Your task to perform on an android device: toggle notification dots Image 0: 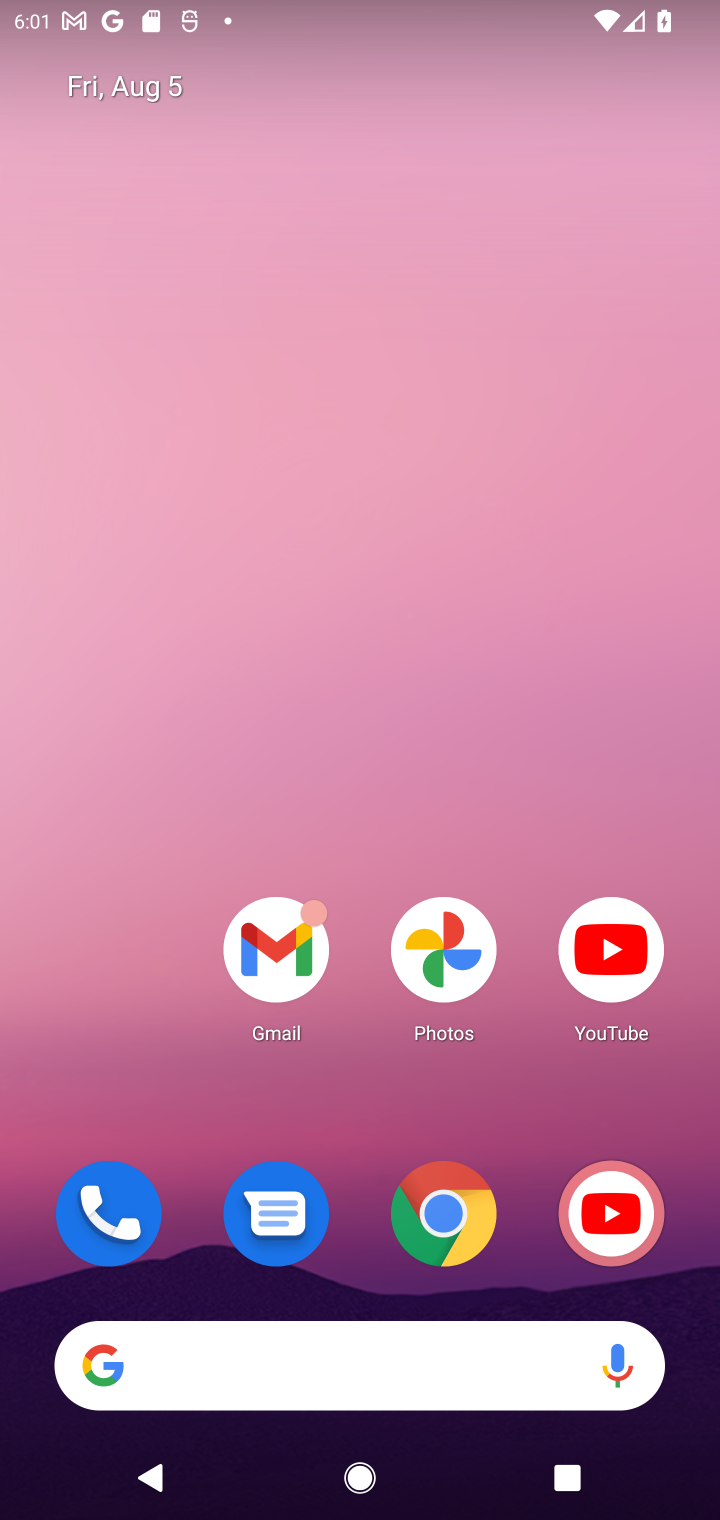
Step 0: drag from (342, 1284) to (397, 432)
Your task to perform on an android device: toggle notification dots Image 1: 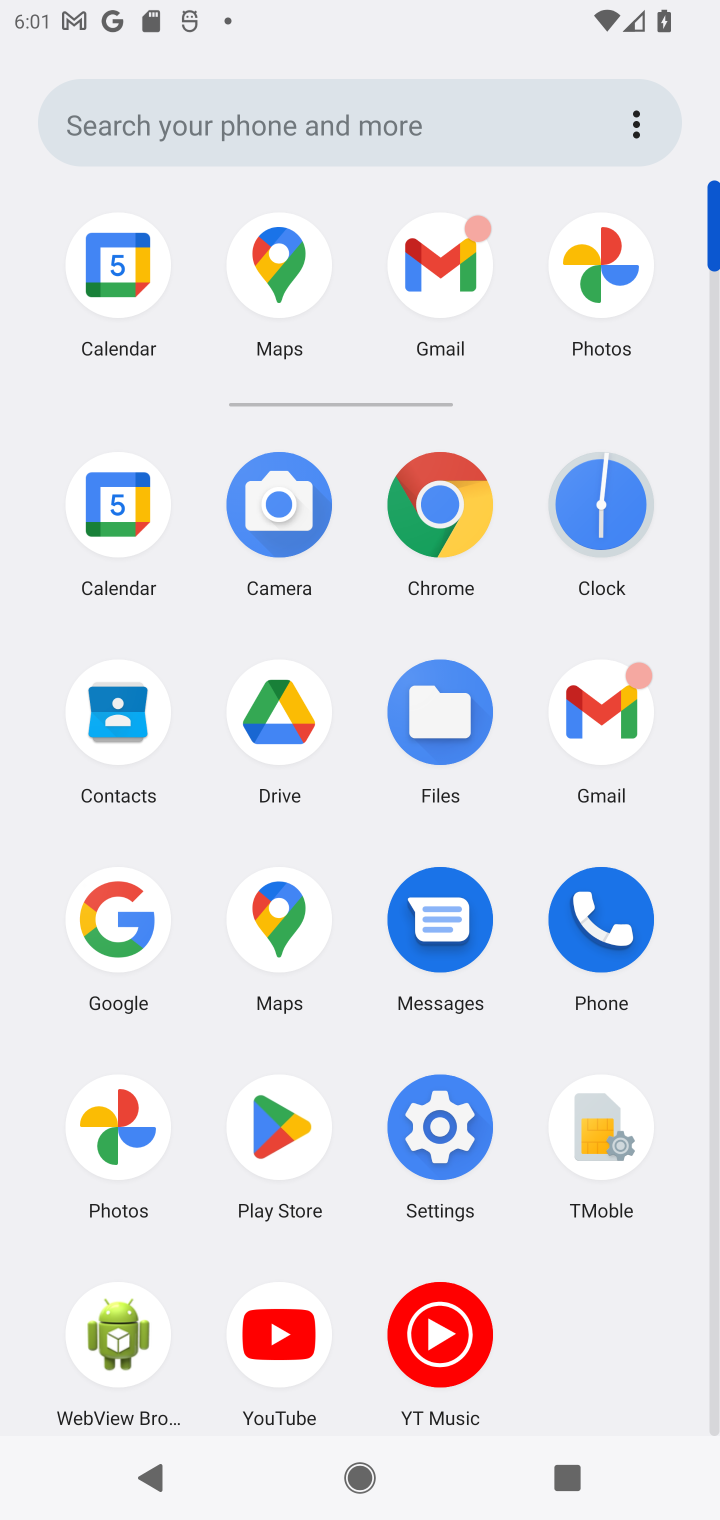
Step 1: click (428, 1144)
Your task to perform on an android device: toggle notification dots Image 2: 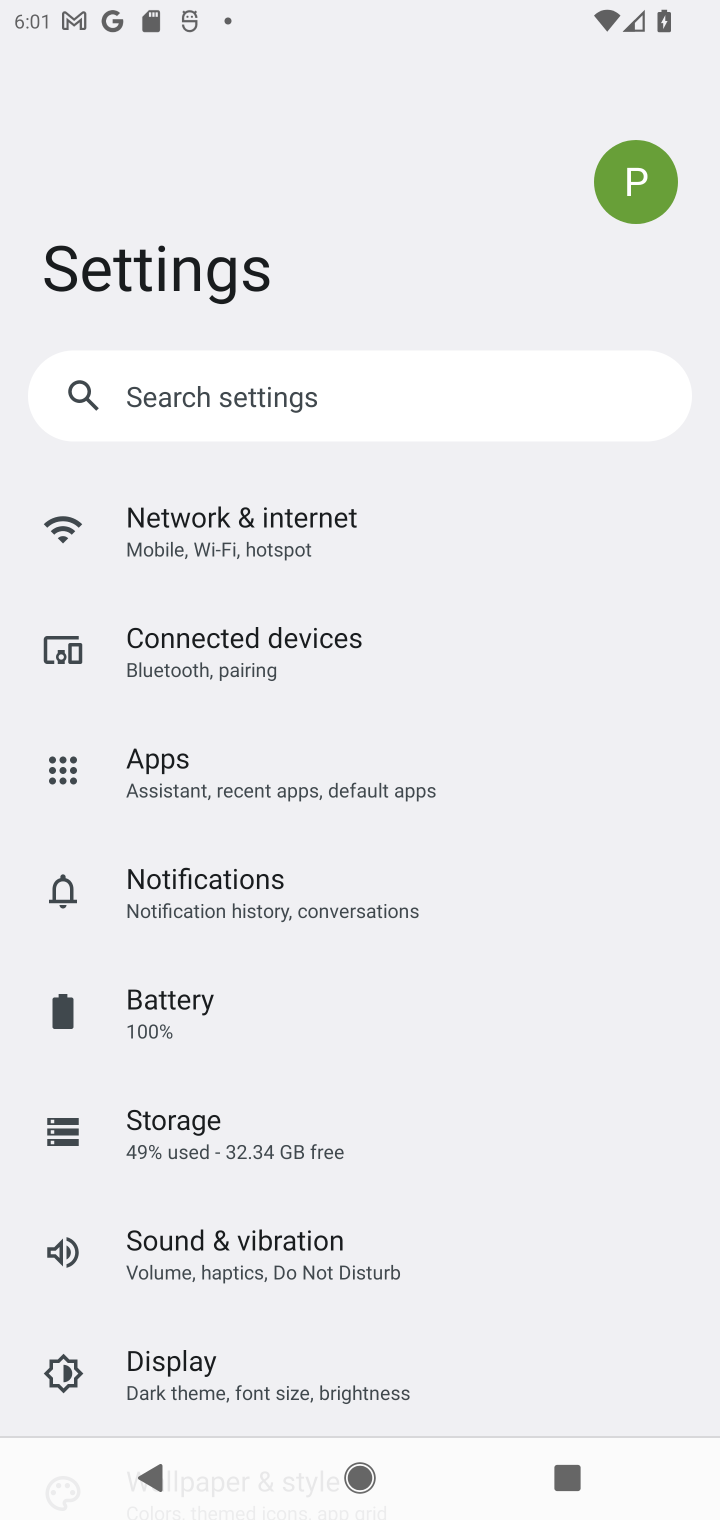
Step 2: click (252, 887)
Your task to perform on an android device: toggle notification dots Image 3: 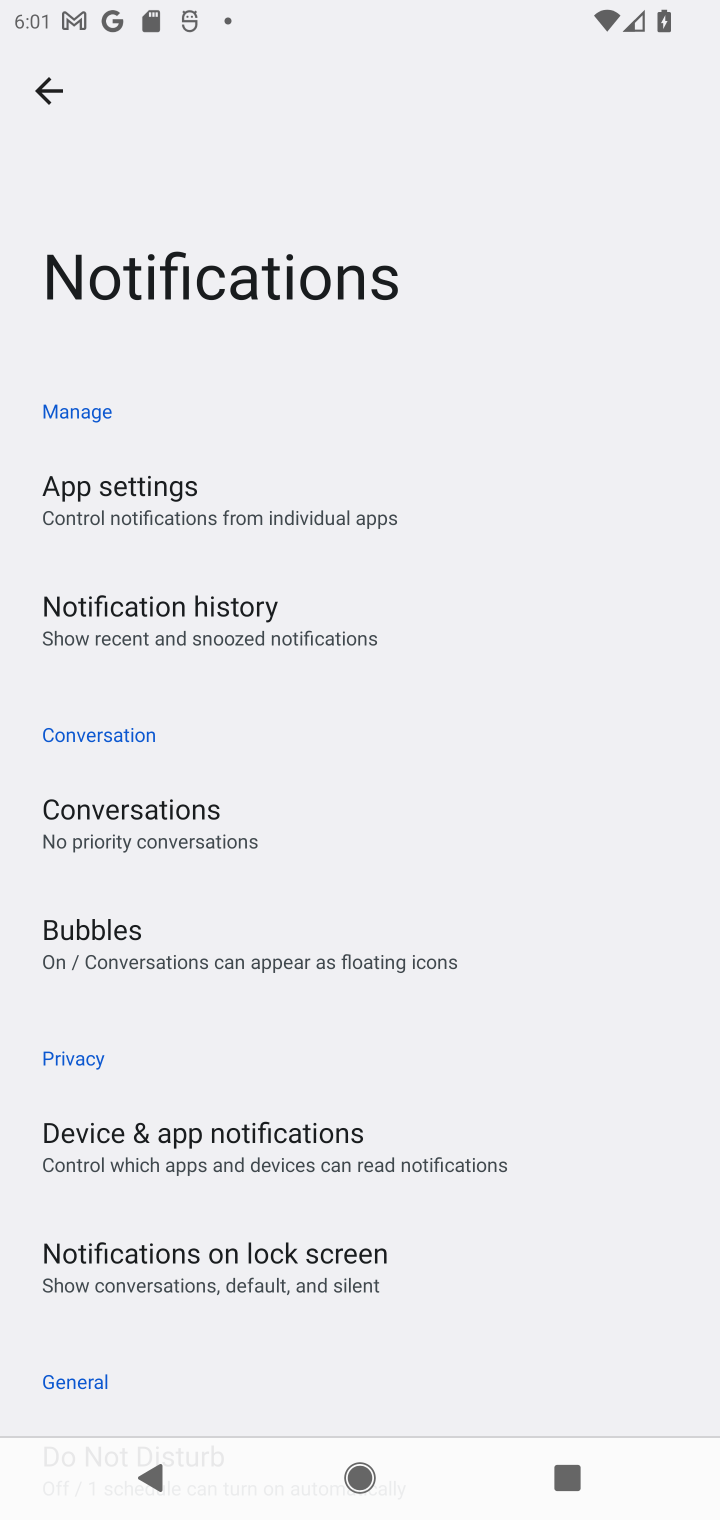
Step 3: task complete